Your task to perform on an android device: change text size in settings app Image 0: 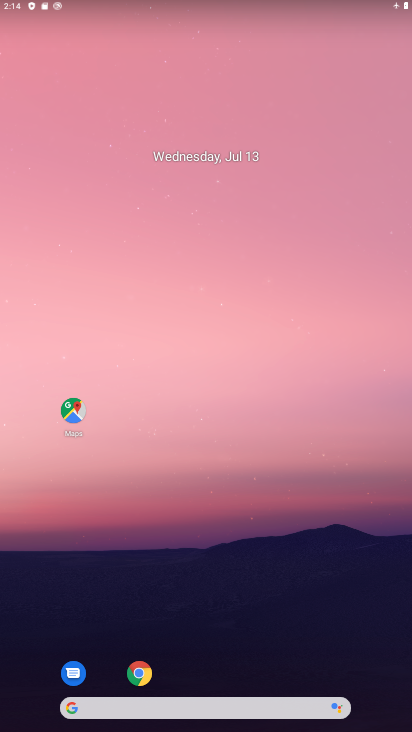
Step 0: drag from (223, 709) to (290, 84)
Your task to perform on an android device: change text size in settings app Image 1: 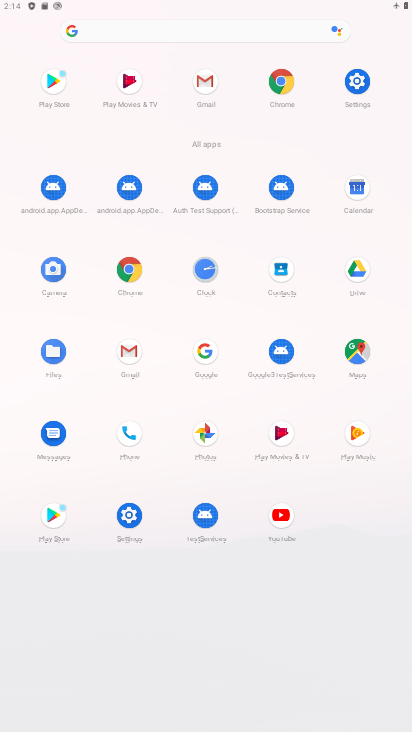
Step 1: click (130, 517)
Your task to perform on an android device: change text size in settings app Image 2: 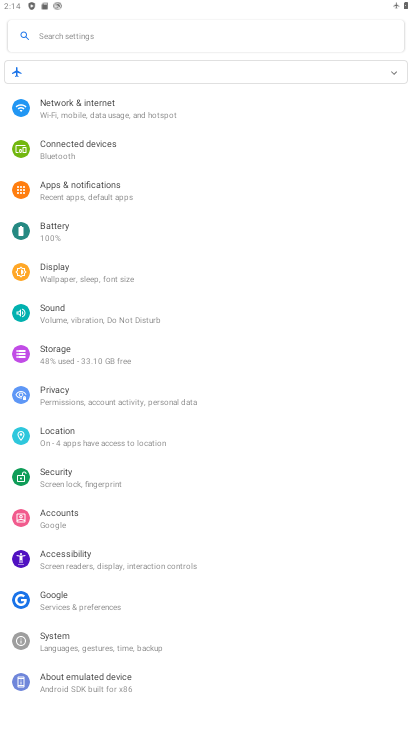
Step 2: click (78, 554)
Your task to perform on an android device: change text size in settings app Image 3: 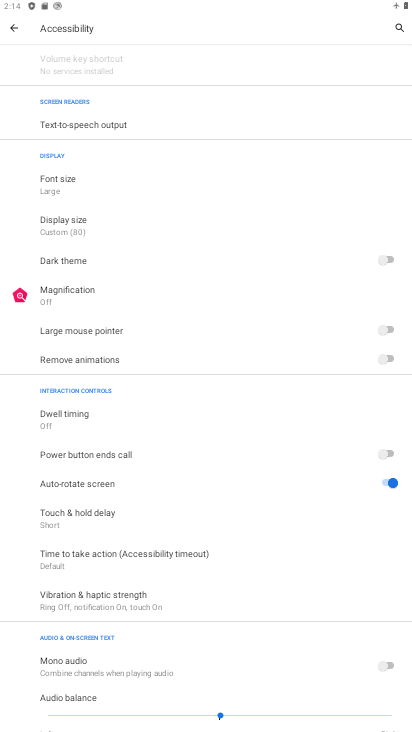
Step 3: click (65, 181)
Your task to perform on an android device: change text size in settings app Image 4: 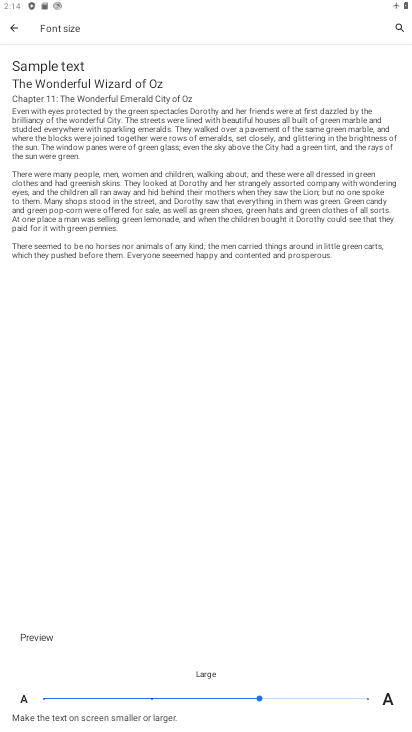
Step 4: click (367, 697)
Your task to perform on an android device: change text size in settings app Image 5: 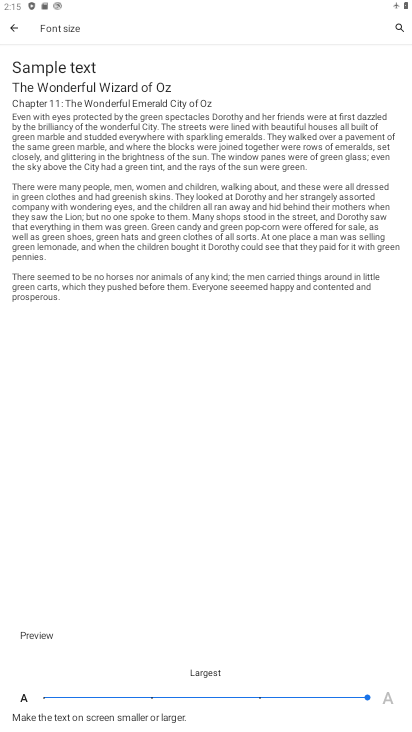
Step 5: task complete